Your task to perform on an android device: Open Yahoo.com Image 0: 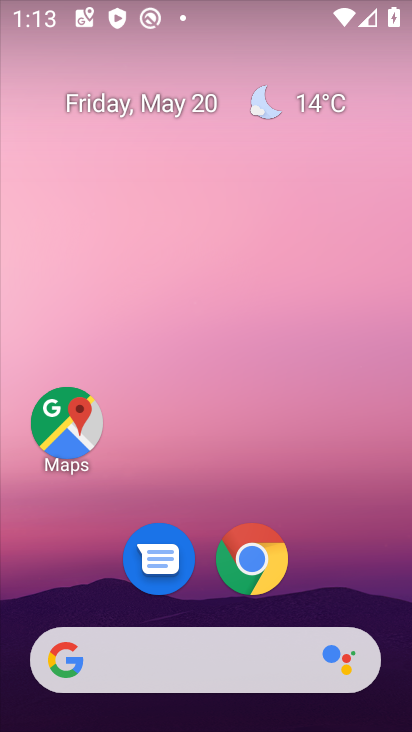
Step 0: drag from (375, 583) to (403, 2)
Your task to perform on an android device: Open Yahoo.com Image 1: 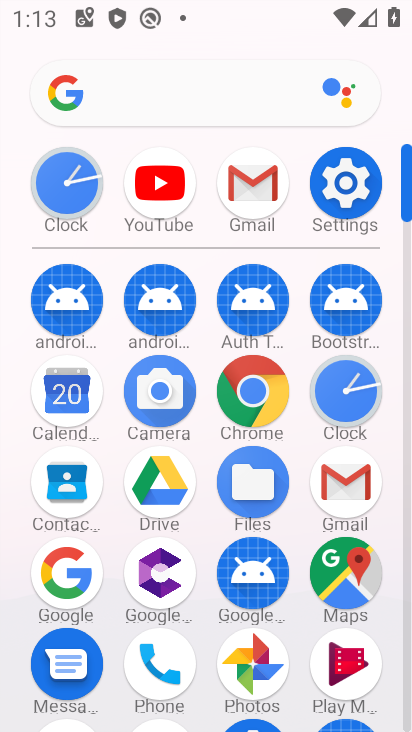
Step 1: click (259, 413)
Your task to perform on an android device: Open Yahoo.com Image 2: 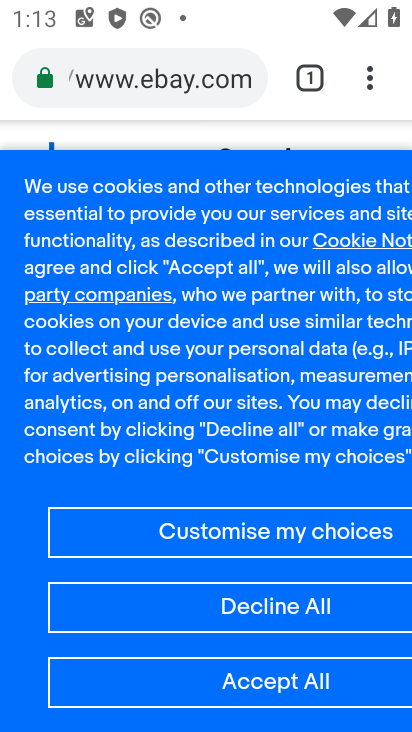
Step 2: click (234, 66)
Your task to perform on an android device: Open Yahoo.com Image 3: 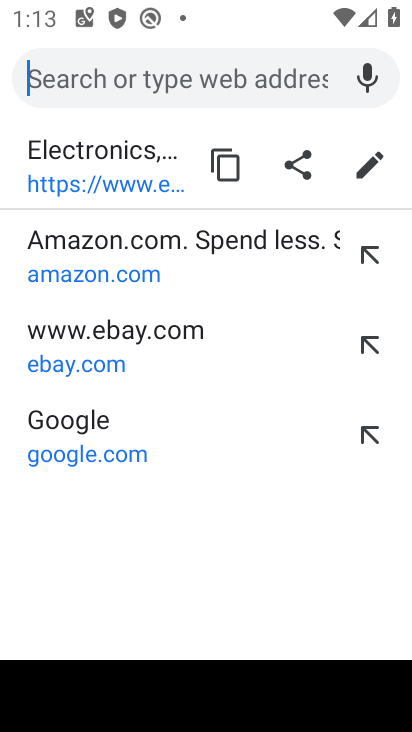
Step 3: type "yahoo.com"
Your task to perform on an android device: Open Yahoo.com Image 4: 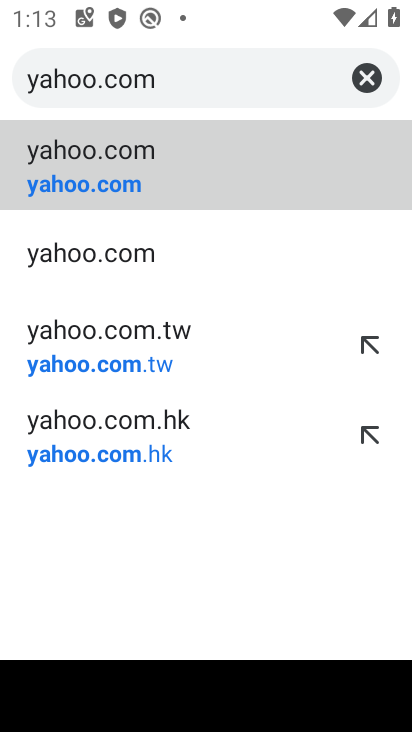
Step 4: click (298, 185)
Your task to perform on an android device: Open Yahoo.com Image 5: 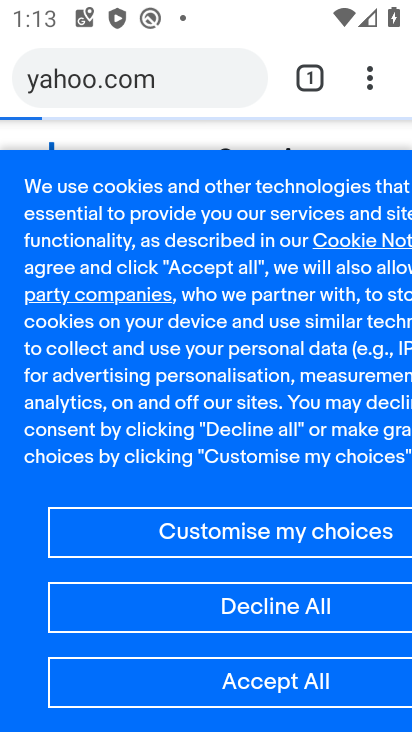
Step 5: task complete